Your task to perform on an android device: Open the stopwatch Image 0: 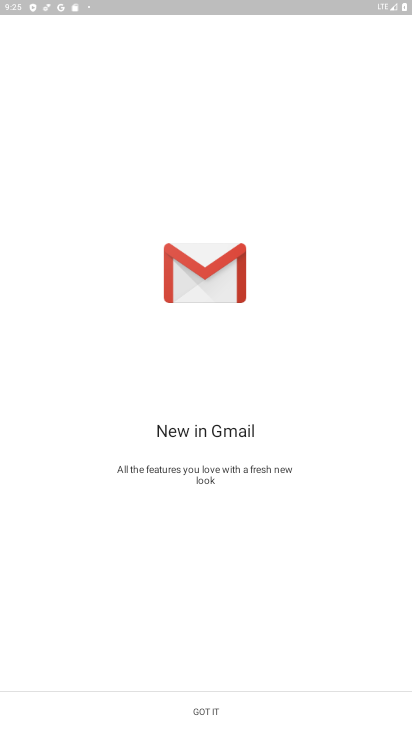
Step 0: press home button
Your task to perform on an android device: Open the stopwatch Image 1: 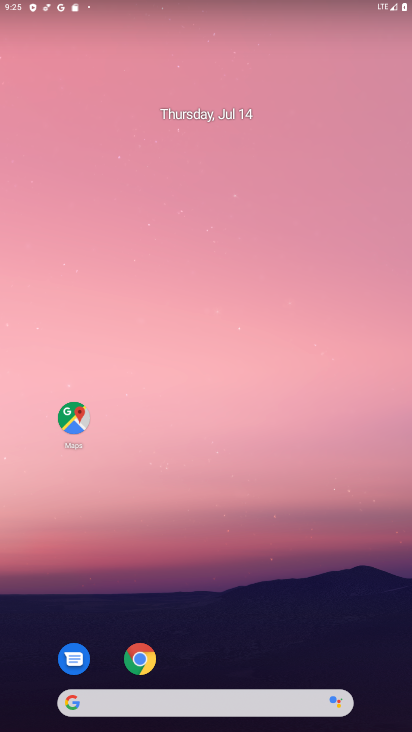
Step 1: drag from (300, 636) to (252, 183)
Your task to perform on an android device: Open the stopwatch Image 2: 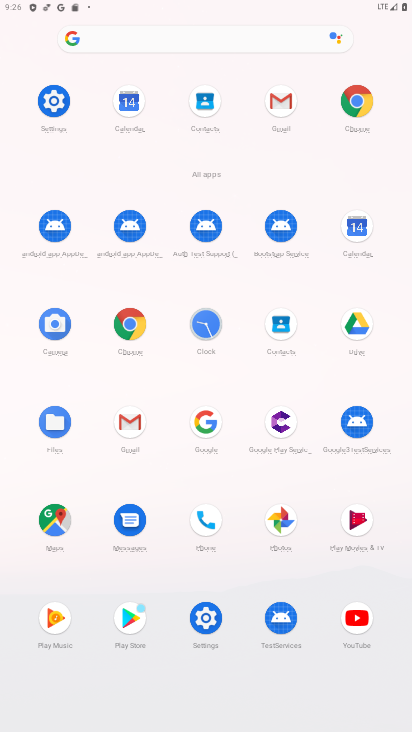
Step 2: click (207, 322)
Your task to perform on an android device: Open the stopwatch Image 3: 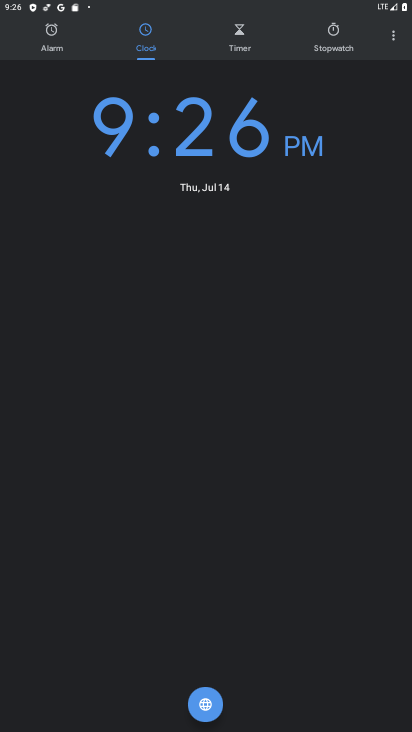
Step 3: click (339, 38)
Your task to perform on an android device: Open the stopwatch Image 4: 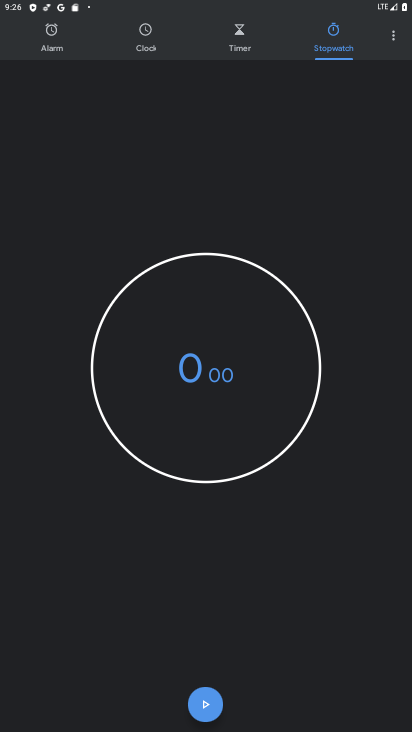
Step 4: task complete